Your task to perform on an android device: Open internet settings Image 0: 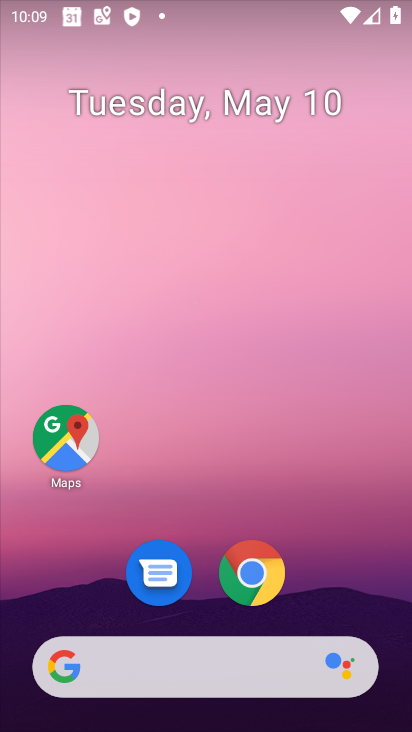
Step 0: drag from (313, 519) to (183, 12)
Your task to perform on an android device: Open internet settings Image 1: 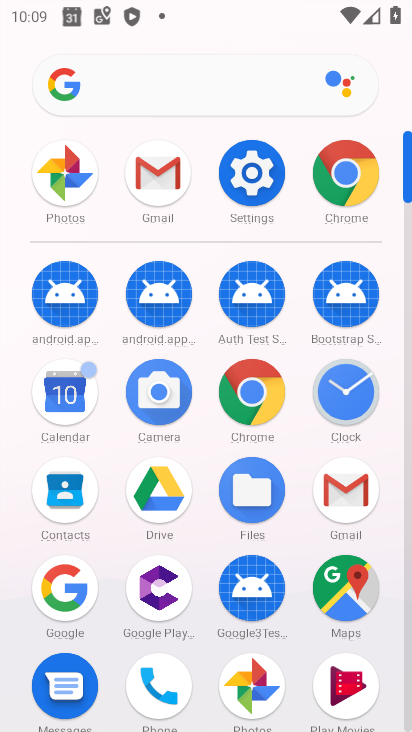
Step 1: click (255, 172)
Your task to perform on an android device: Open internet settings Image 2: 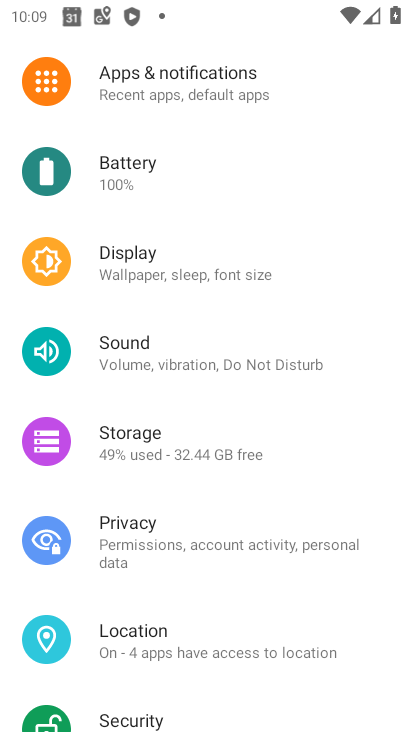
Step 2: drag from (179, 166) to (195, 483)
Your task to perform on an android device: Open internet settings Image 3: 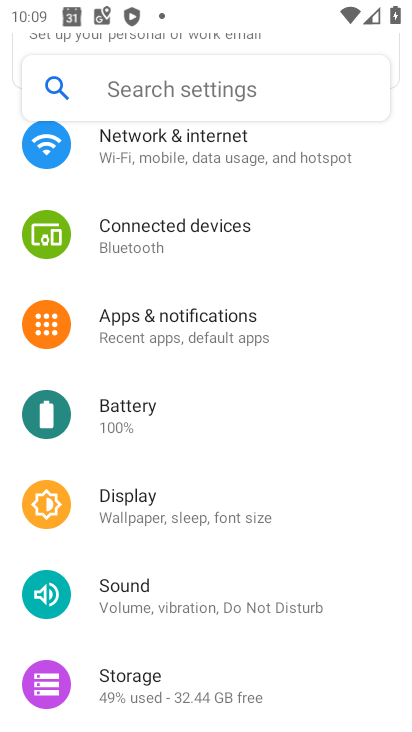
Step 3: click (169, 136)
Your task to perform on an android device: Open internet settings Image 4: 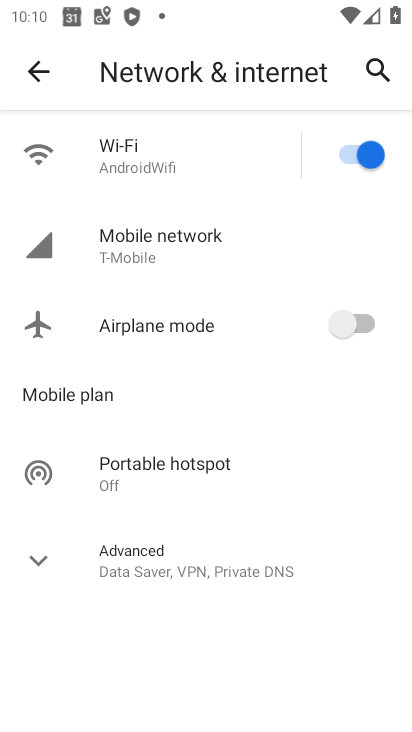
Step 4: task complete